Your task to perform on an android device: Open display settings Image 0: 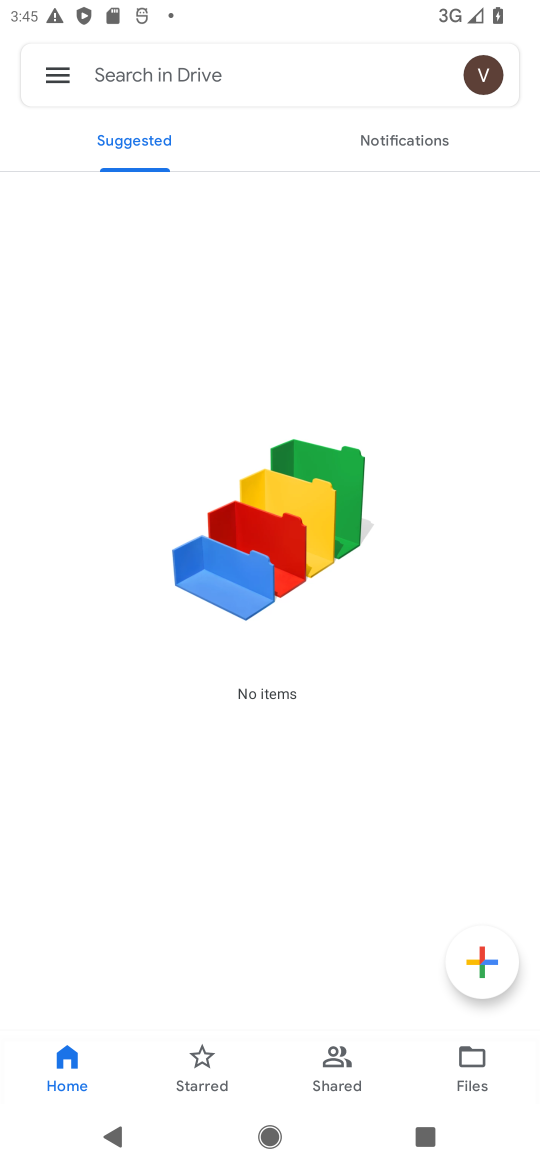
Step 0: press home button
Your task to perform on an android device: Open display settings Image 1: 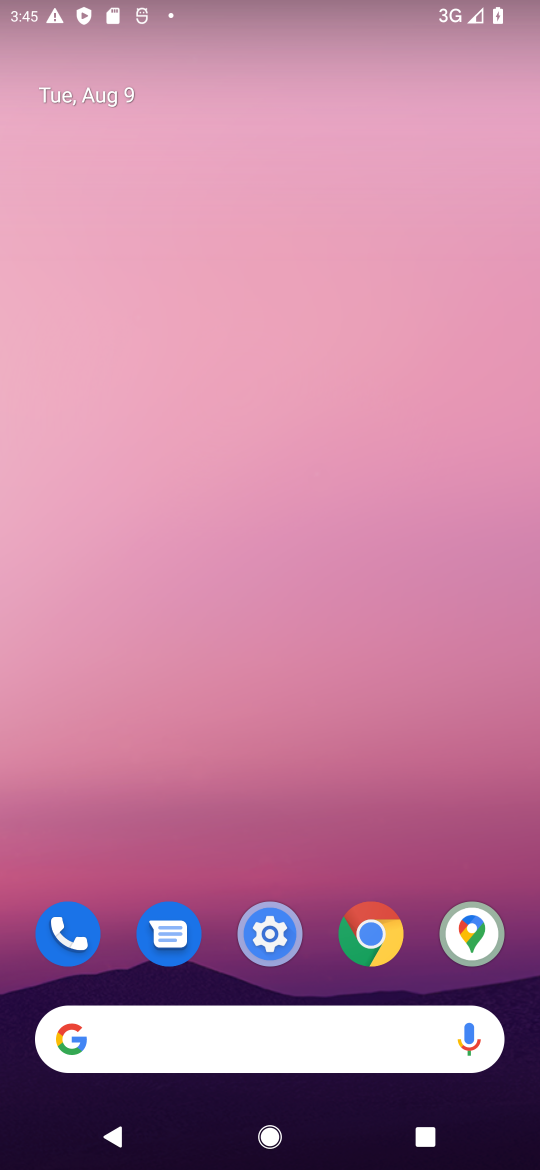
Step 1: click (257, 951)
Your task to perform on an android device: Open display settings Image 2: 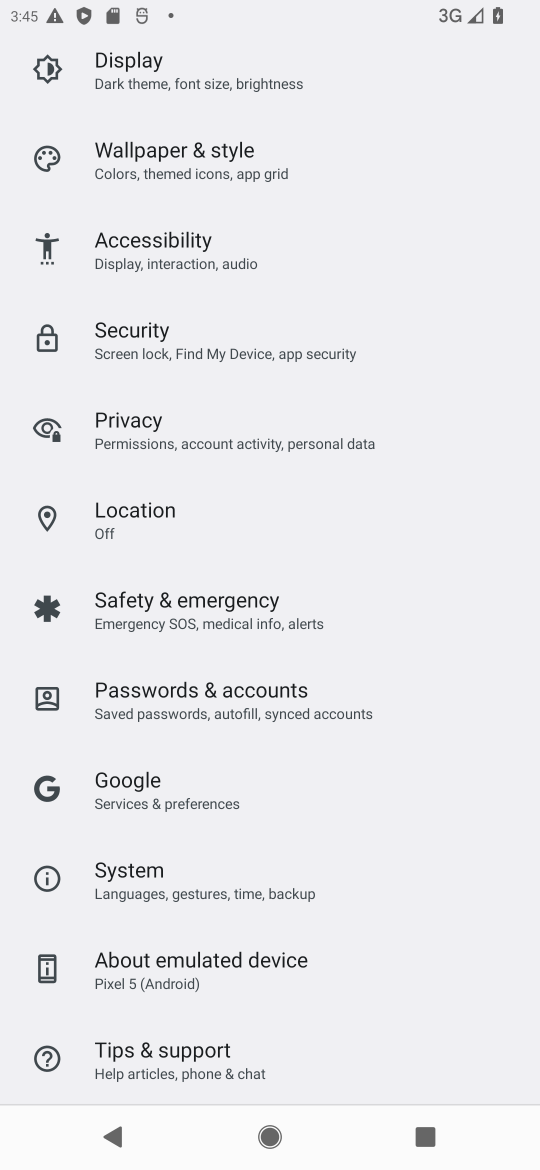
Step 2: click (221, 103)
Your task to perform on an android device: Open display settings Image 3: 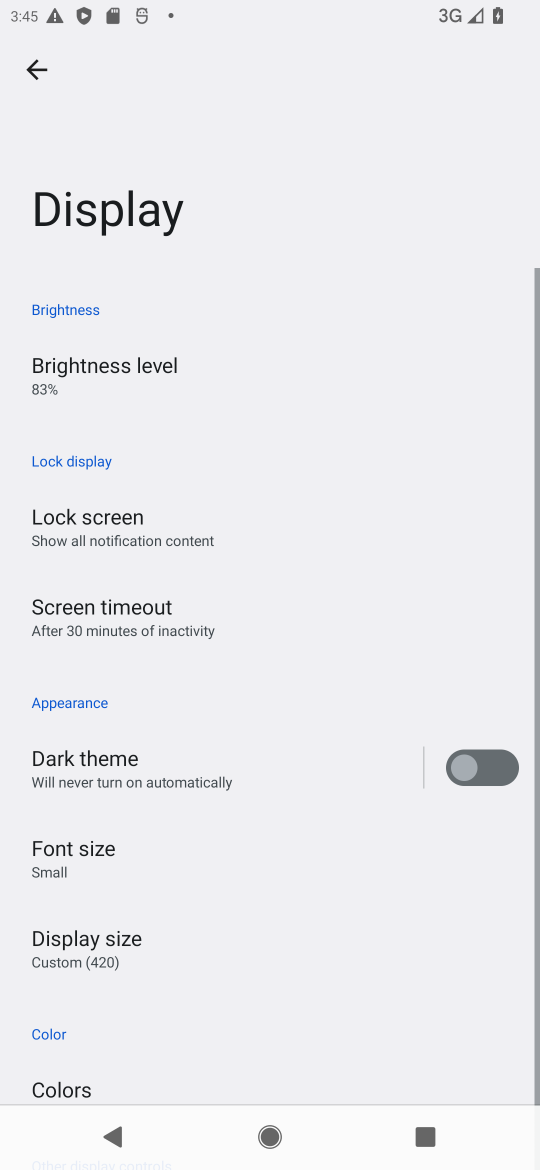
Step 3: task complete